Your task to perform on an android device: toggle data saver in the chrome app Image 0: 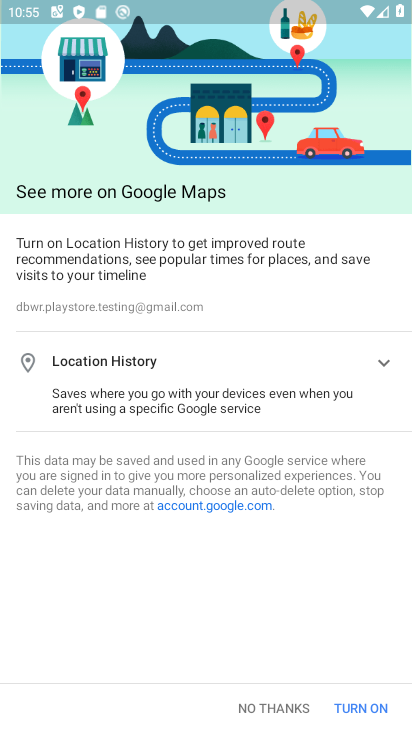
Step 0: press home button
Your task to perform on an android device: toggle data saver in the chrome app Image 1: 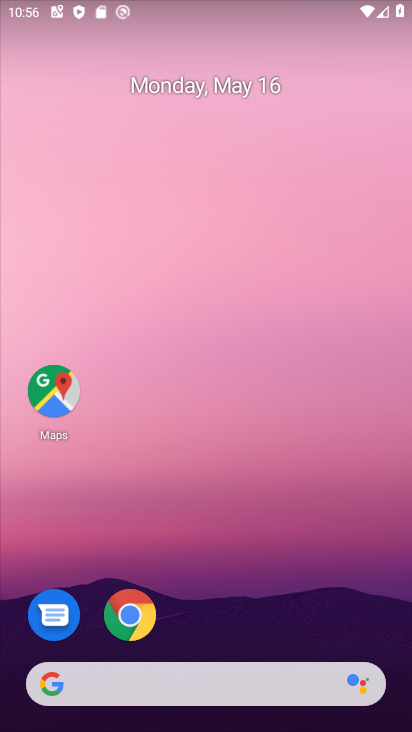
Step 1: click (129, 621)
Your task to perform on an android device: toggle data saver in the chrome app Image 2: 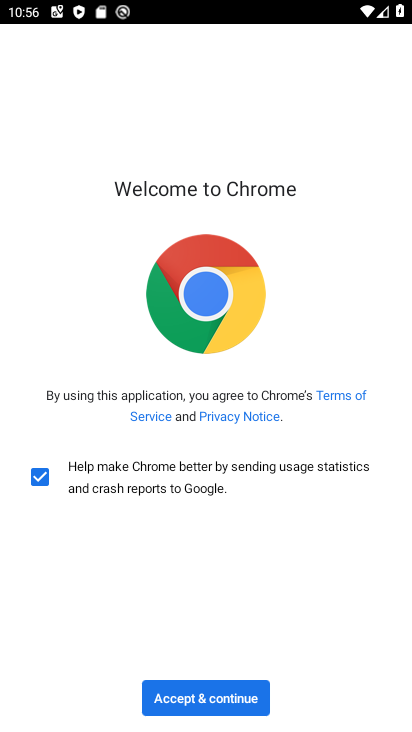
Step 2: click (237, 695)
Your task to perform on an android device: toggle data saver in the chrome app Image 3: 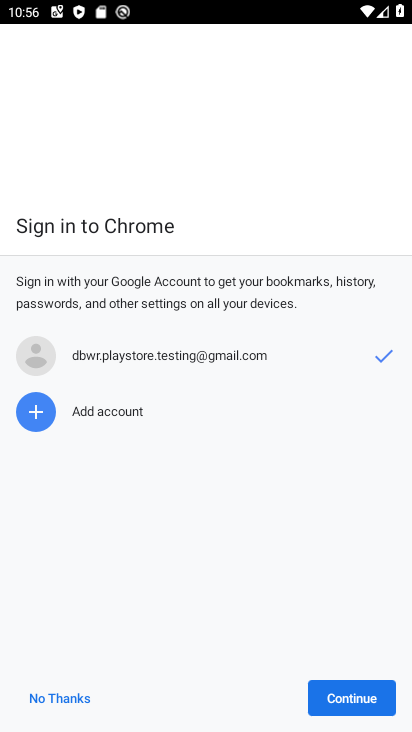
Step 3: click (362, 698)
Your task to perform on an android device: toggle data saver in the chrome app Image 4: 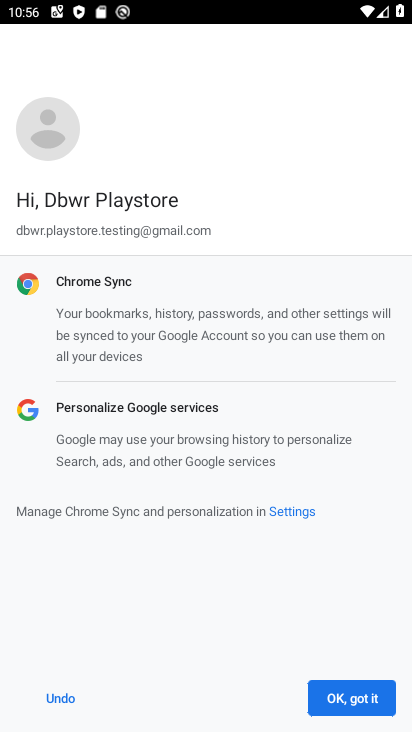
Step 4: click (375, 698)
Your task to perform on an android device: toggle data saver in the chrome app Image 5: 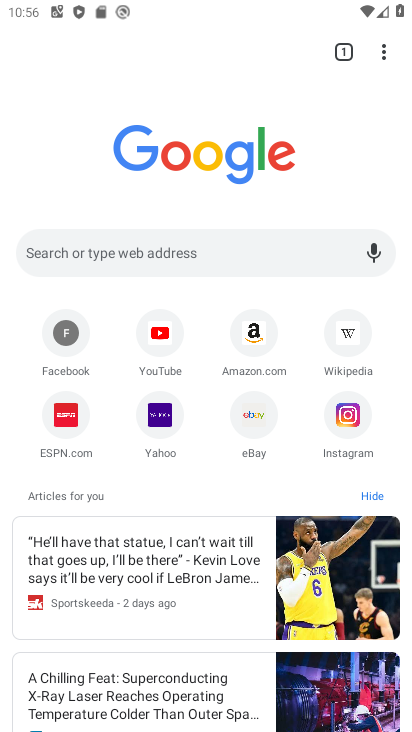
Step 5: click (385, 56)
Your task to perform on an android device: toggle data saver in the chrome app Image 6: 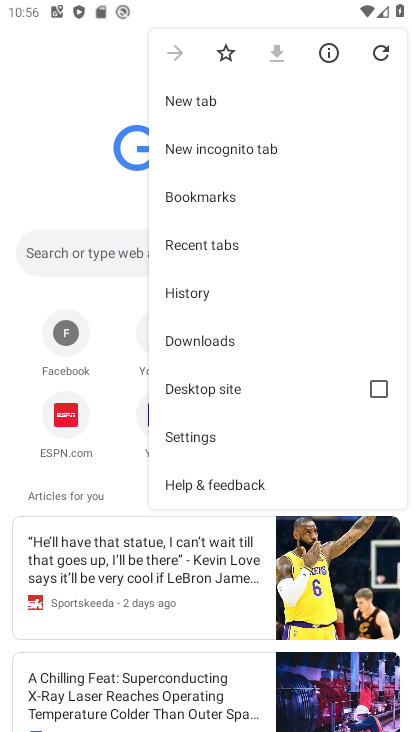
Step 6: click (176, 430)
Your task to perform on an android device: toggle data saver in the chrome app Image 7: 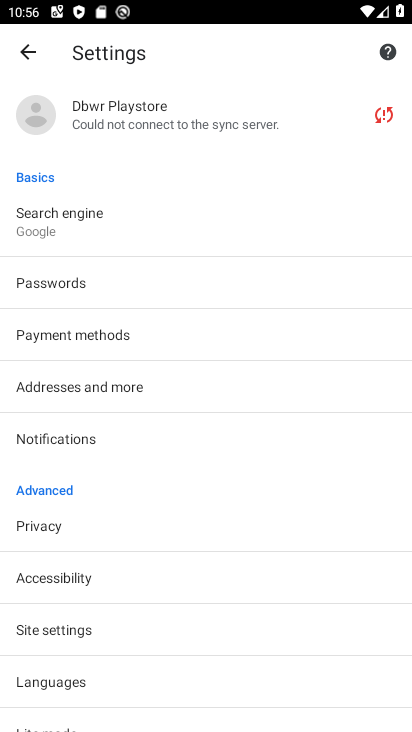
Step 7: drag from (94, 625) to (94, 428)
Your task to perform on an android device: toggle data saver in the chrome app Image 8: 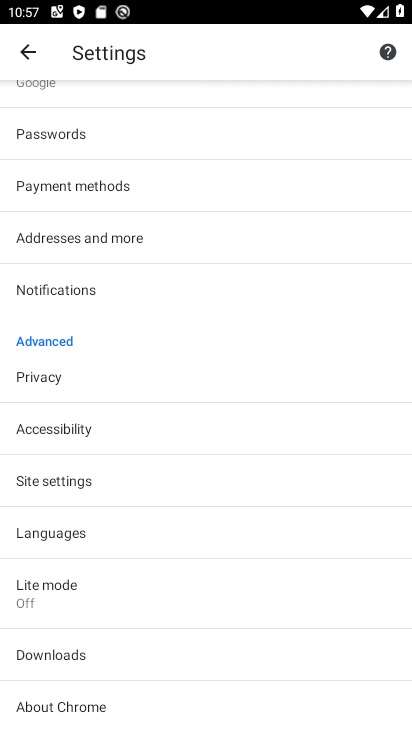
Step 8: click (45, 590)
Your task to perform on an android device: toggle data saver in the chrome app Image 9: 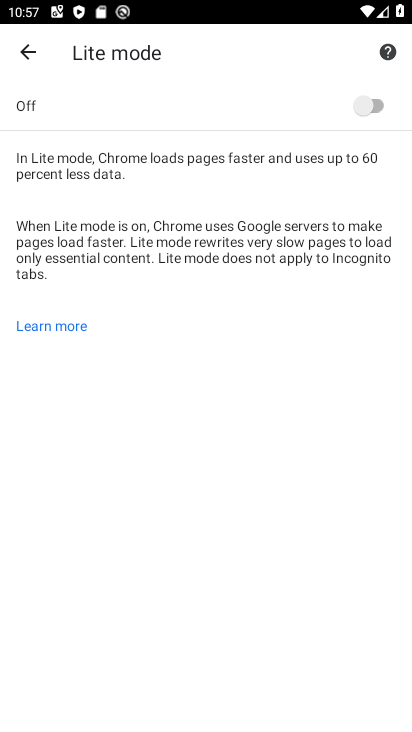
Step 9: click (375, 107)
Your task to perform on an android device: toggle data saver in the chrome app Image 10: 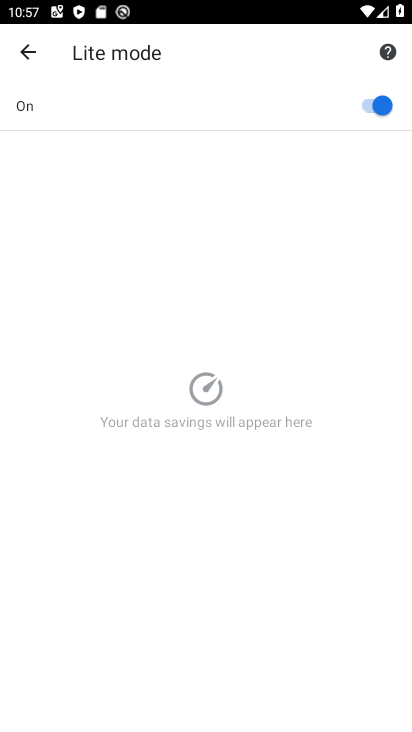
Step 10: task complete